Your task to perform on an android device: change the clock style Image 0: 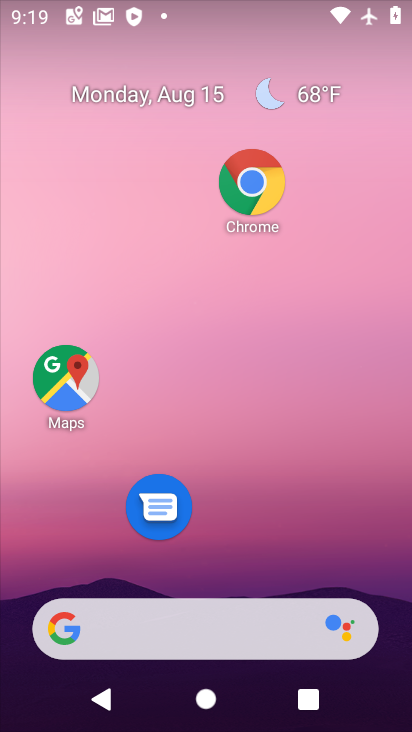
Step 0: task complete